Your task to perform on an android device: Open internet settings Image 0: 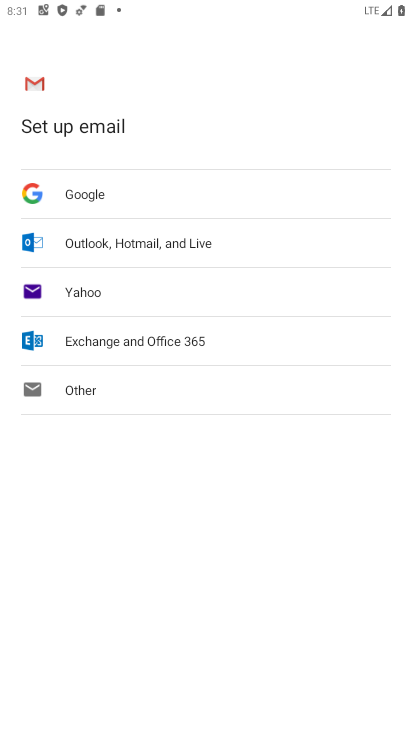
Step 0: press home button
Your task to perform on an android device: Open internet settings Image 1: 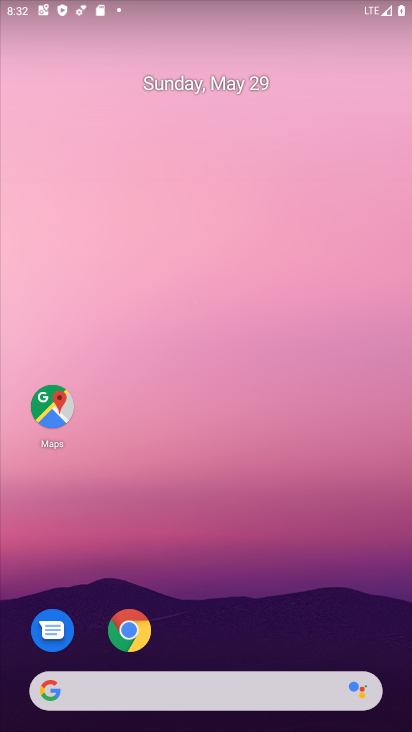
Step 1: drag from (214, 654) to (175, 83)
Your task to perform on an android device: Open internet settings Image 2: 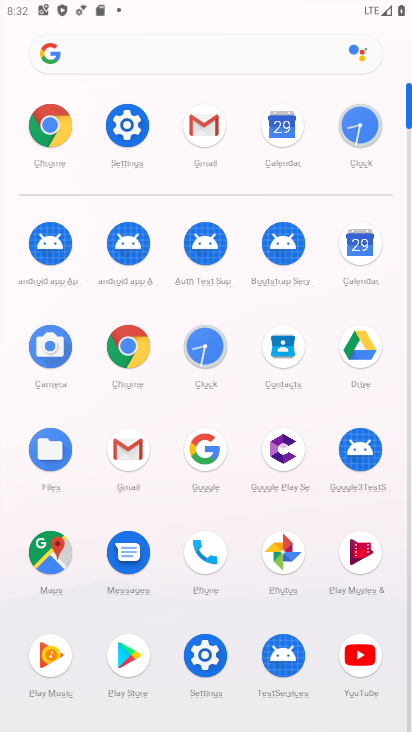
Step 2: click (114, 99)
Your task to perform on an android device: Open internet settings Image 3: 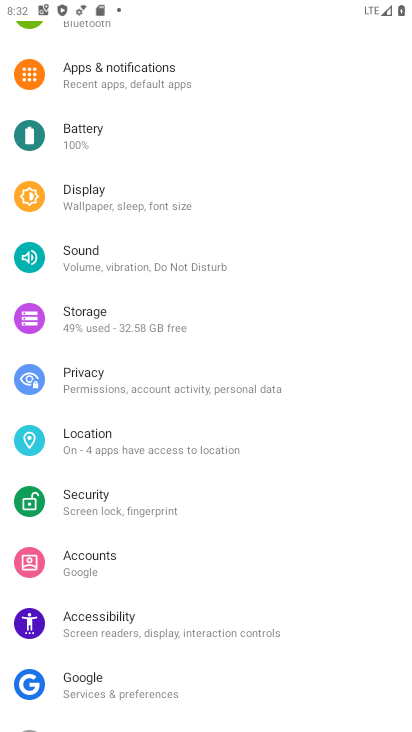
Step 3: drag from (114, 99) to (62, 551)
Your task to perform on an android device: Open internet settings Image 4: 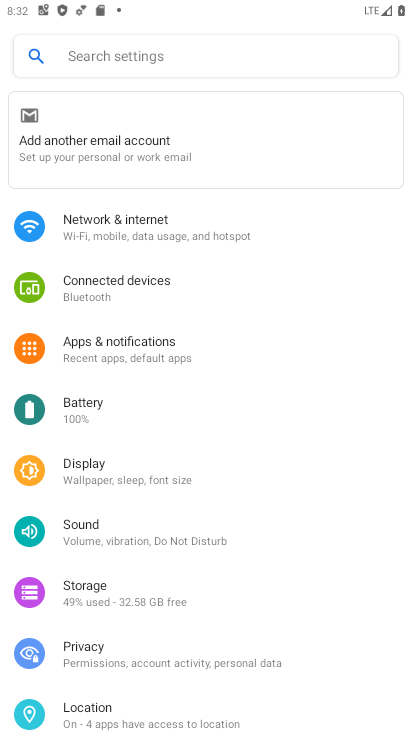
Step 4: click (156, 238)
Your task to perform on an android device: Open internet settings Image 5: 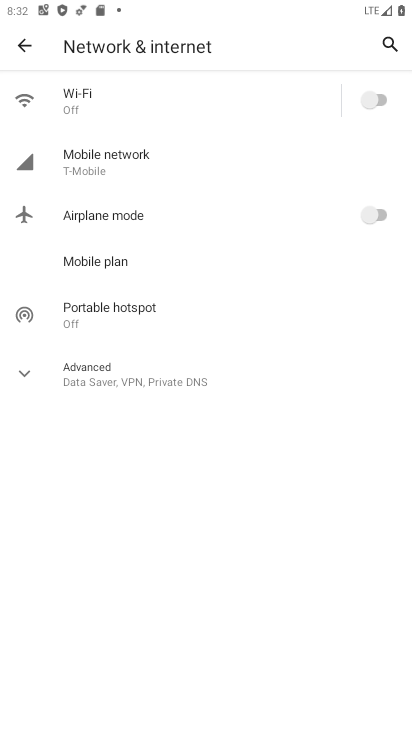
Step 5: click (101, 121)
Your task to perform on an android device: Open internet settings Image 6: 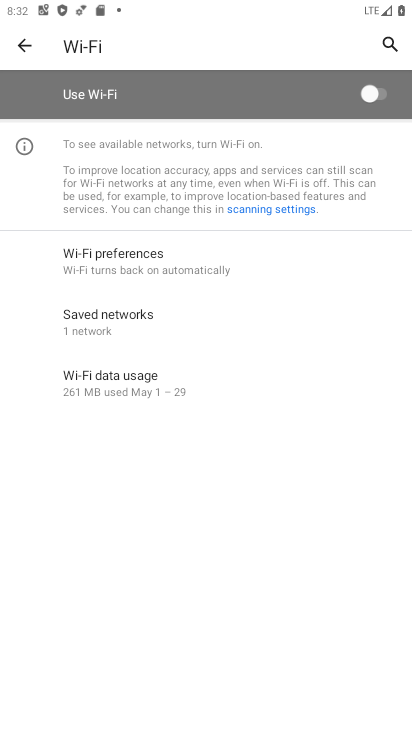
Step 6: click (22, 38)
Your task to perform on an android device: Open internet settings Image 7: 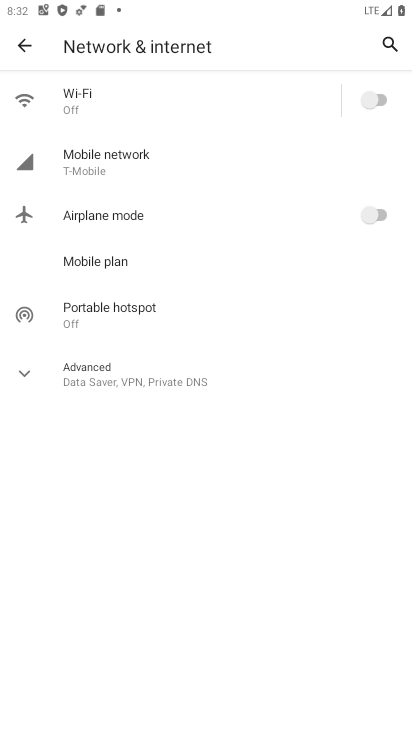
Step 7: click (43, 144)
Your task to perform on an android device: Open internet settings Image 8: 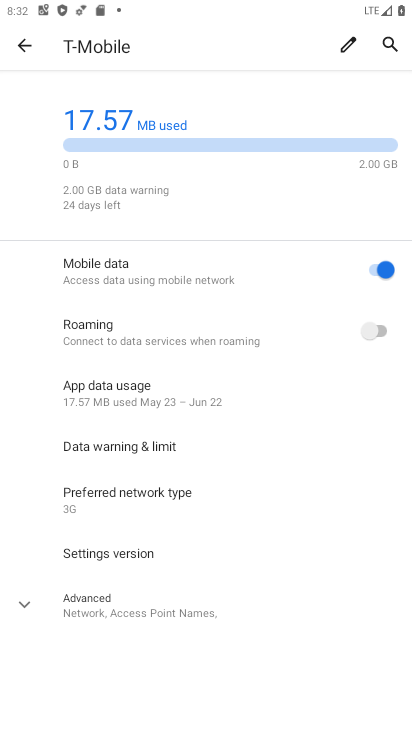
Step 8: task complete